Your task to perform on an android device: Show me popular games on the Play Store Image 0: 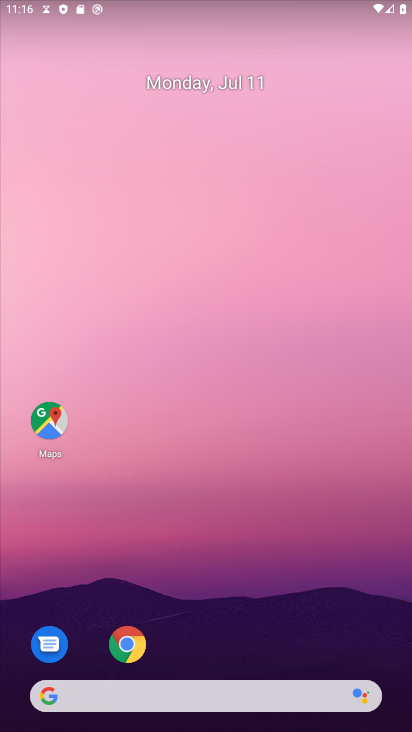
Step 0: drag from (374, 625) to (268, 96)
Your task to perform on an android device: Show me popular games on the Play Store Image 1: 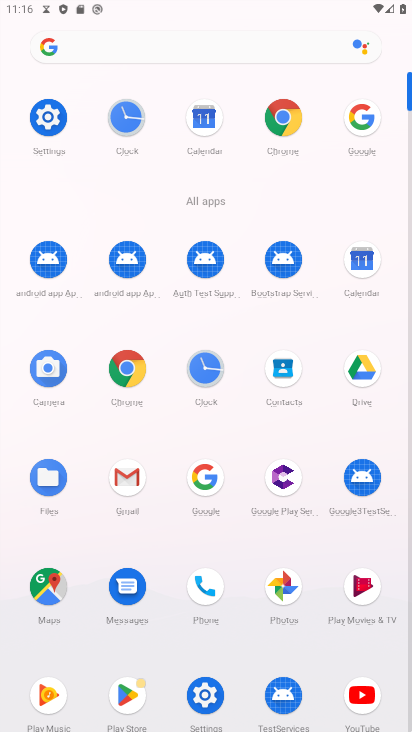
Step 1: click (123, 693)
Your task to perform on an android device: Show me popular games on the Play Store Image 2: 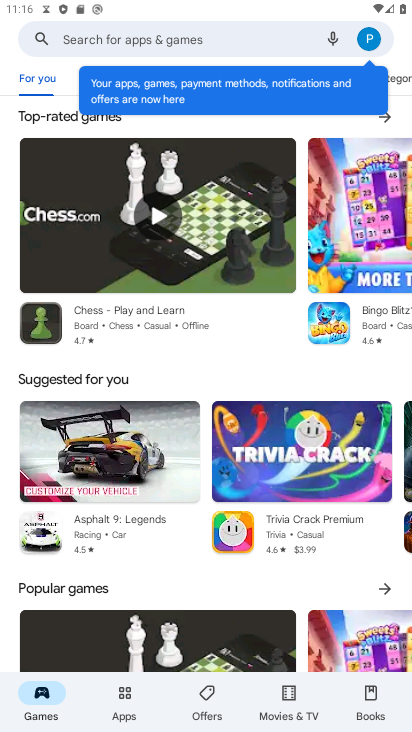
Step 2: click (162, 30)
Your task to perform on an android device: Show me popular games on the Play Store Image 3: 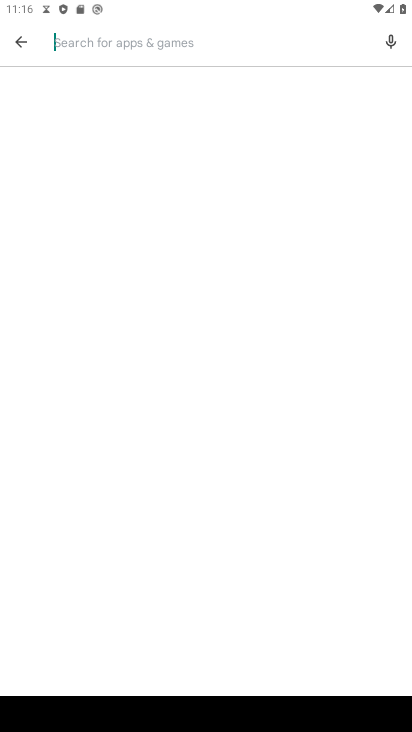
Step 3: type "popular games on the Play Store"
Your task to perform on an android device: Show me popular games on the Play Store Image 4: 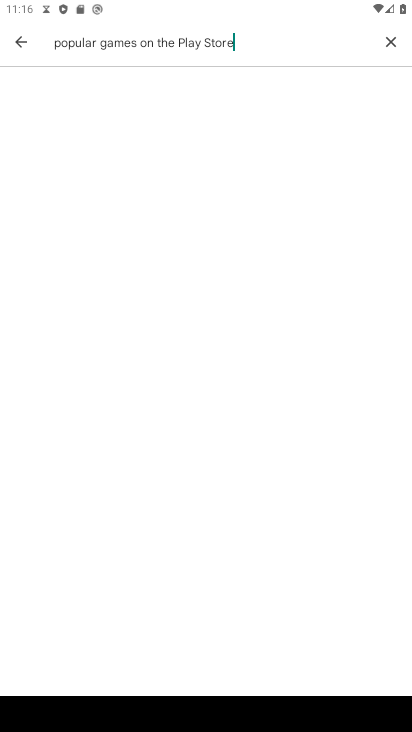
Step 4: task complete